Your task to perform on an android device: Search for sushi restaurants on Maps Image 0: 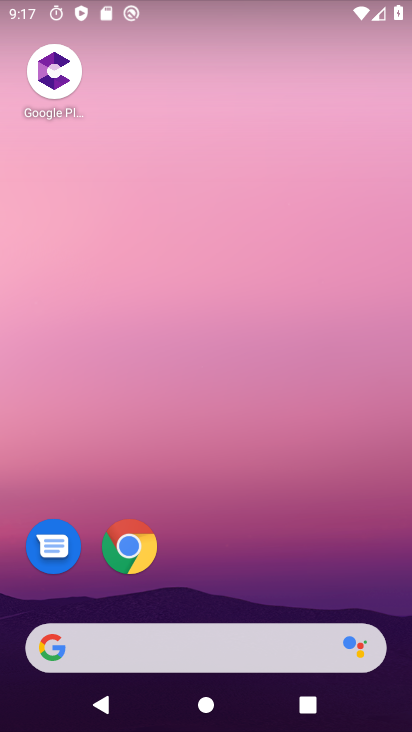
Step 0: drag from (230, 563) to (275, 2)
Your task to perform on an android device: Search for sushi restaurants on Maps Image 1: 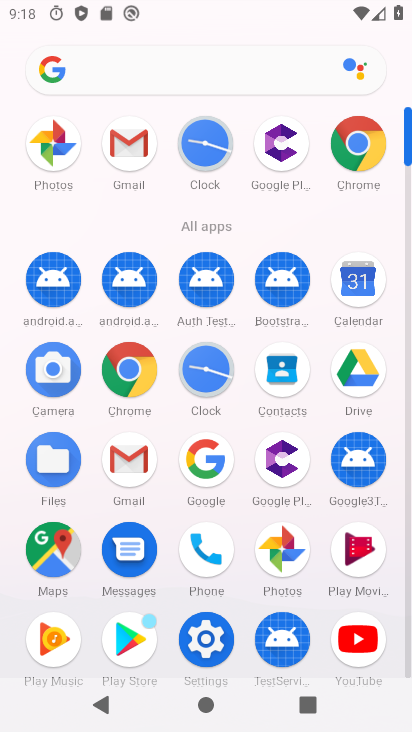
Step 1: click (53, 538)
Your task to perform on an android device: Search for sushi restaurants on Maps Image 2: 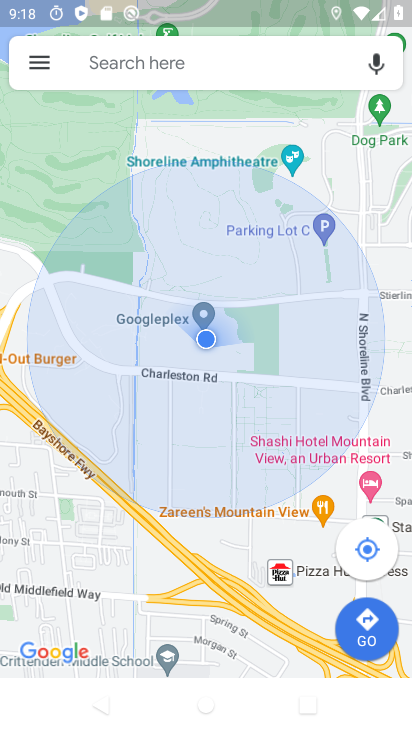
Step 2: click (183, 77)
Your task to perform on an android device: Search for sushi restaurants on Maps Image 3: 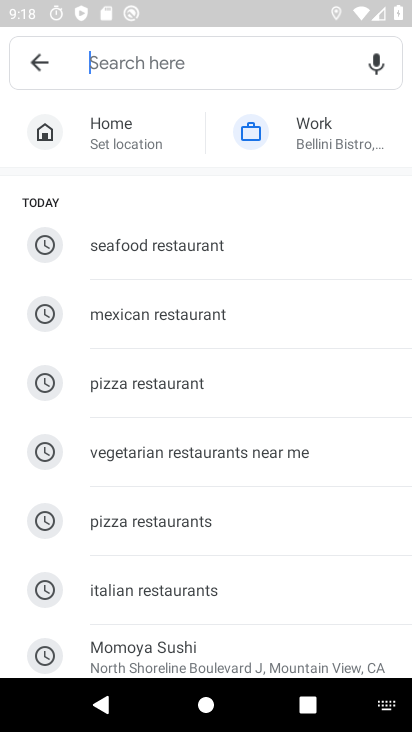
Step 3: type "sushi restaurants"
Your task to perform on an android device: Search for sushi restaurants on Maps Image 4: 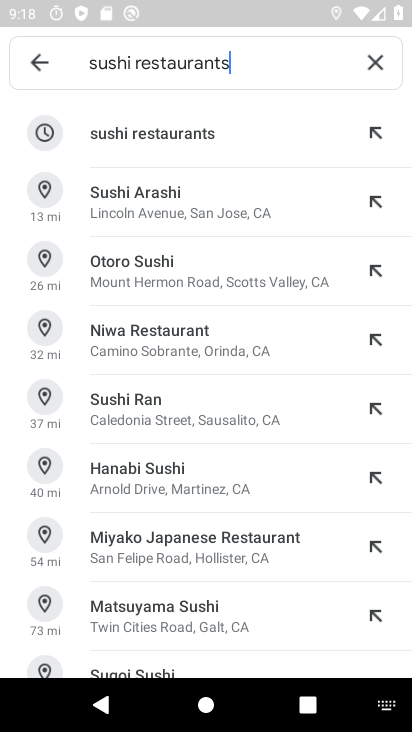
Step 4: click (174, 141)
Your task to perform on an android device: Search for sushi restaurants on Maps Image 5: 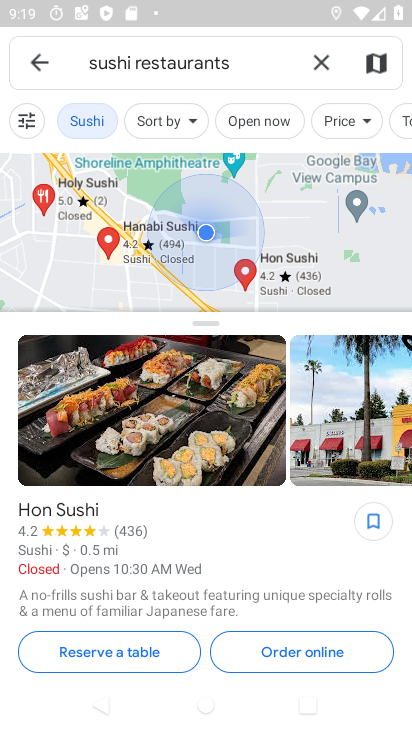
Step 5: task complete